Your task to perform on an android device: toggle show notifications on the lock screen Image 0: 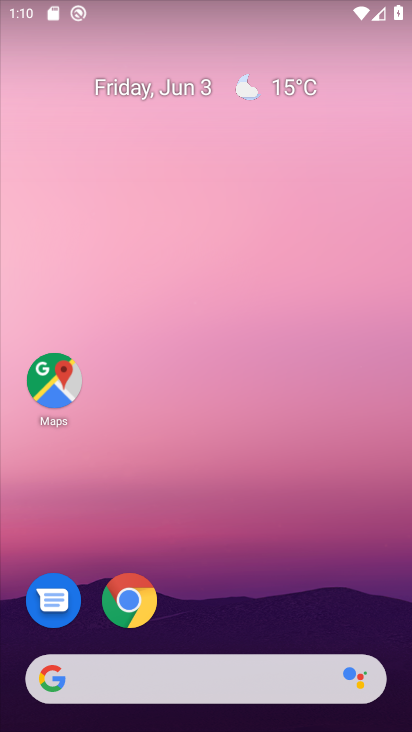
Step 0: drag from (182, 600) to (282, 85)
Your task to perform on an android device: toggle show notifications on the lock screen Image 1: 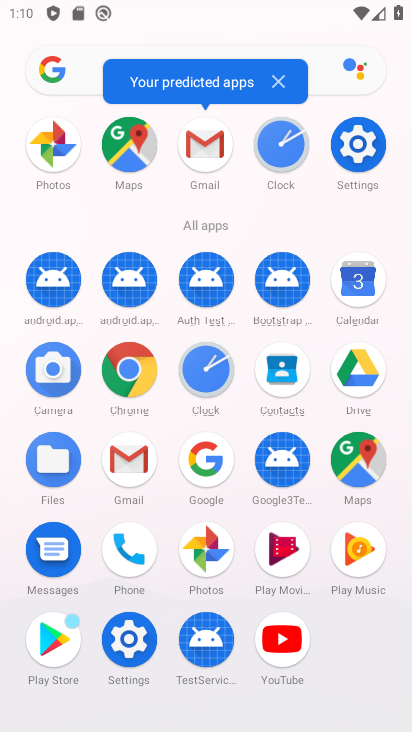
Step 1: click (133, 635)
Your task to perform on an android device: toggle show notifications on the lock screen Image 2: 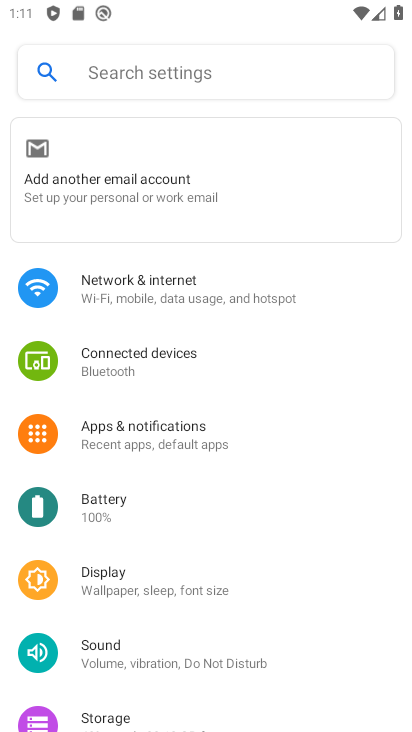
Step 2: click (196, 452)
Your task to perform on an android device: toggle show notifications on the lock screen Image 3: 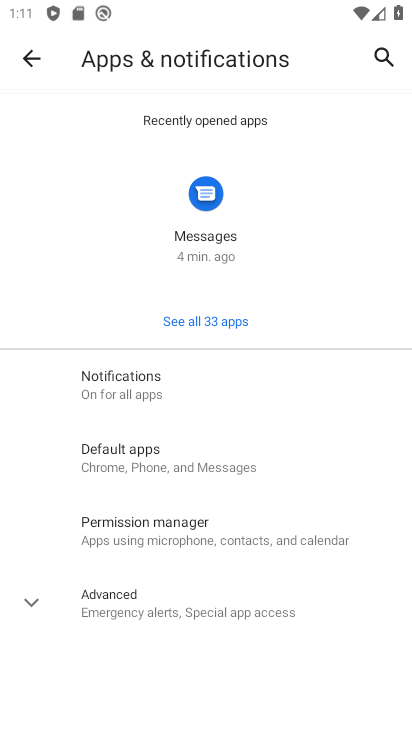
Step 3: click (192, 390)
Your task to perform on an android device: toggle show notifications on the lock screen Image 4: 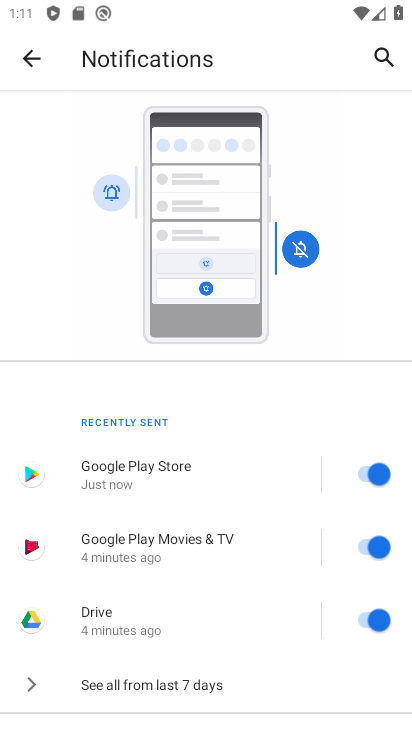
Step 4: drag from (157, 655) to (319, 226)
Your task to perform on an android device: toggle show notifications on the lock screen Image 5: 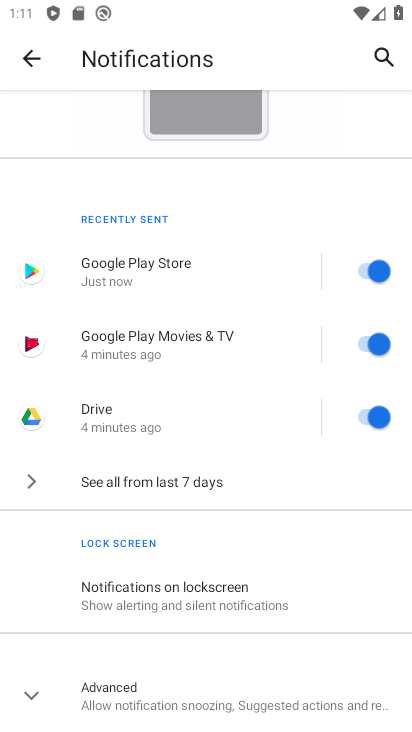
Step 5: click (192, 605)
Your task to perform on an android device: toggle show notifications on the lock screen Image 6: 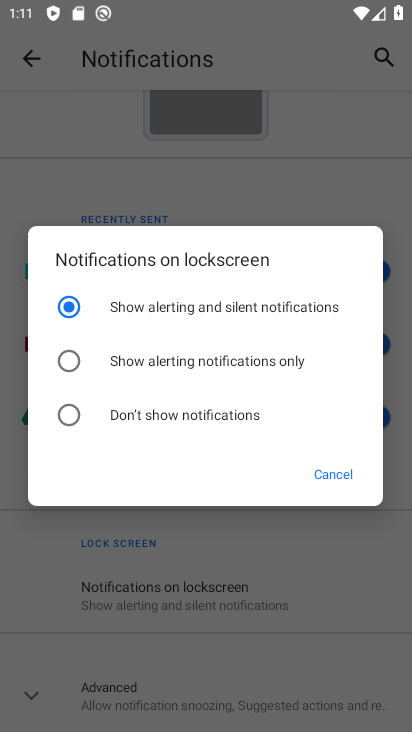
Step 6: click (175, 410)
Your task to perform on an android device: toggle show notifications on the lock screen Image 7: 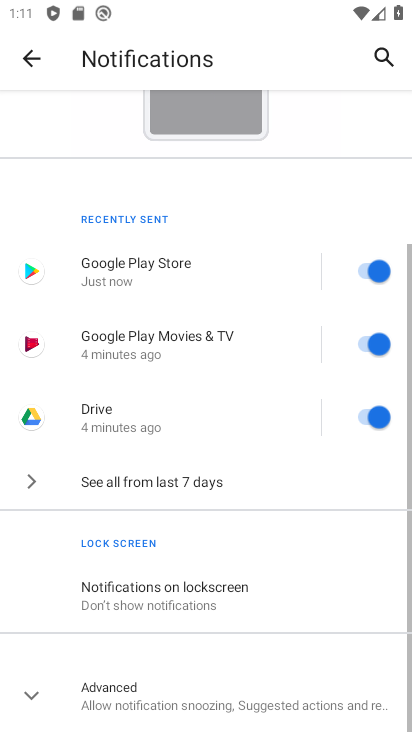
Step 7: task complete